Your task to perform on an android device: Open Youtube and go to the subscriptions tab Image 0: 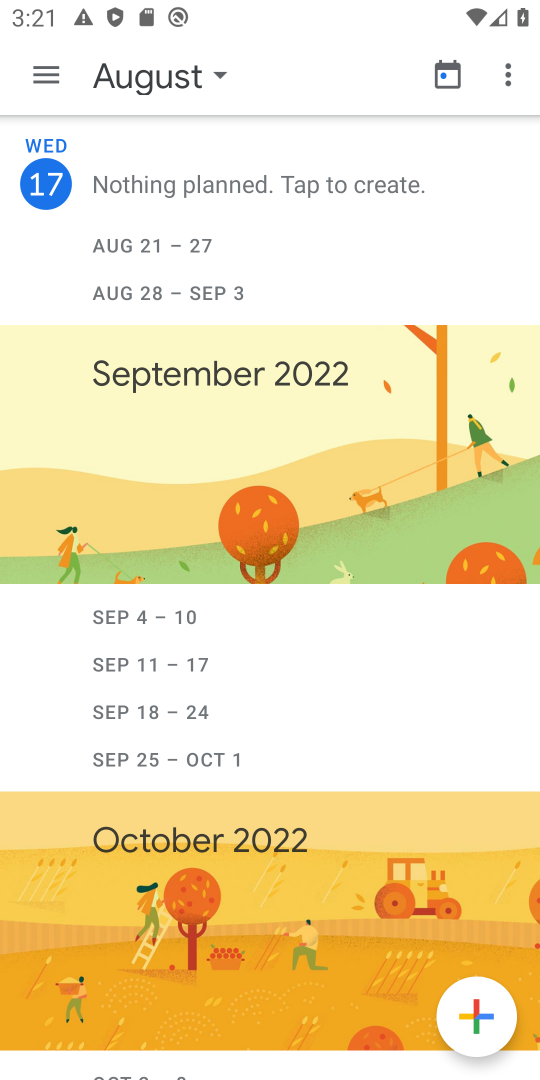
Step 0: press home button
Your task to perform on an android device: Open Youtube and go to the subscriptions tab Image 1: 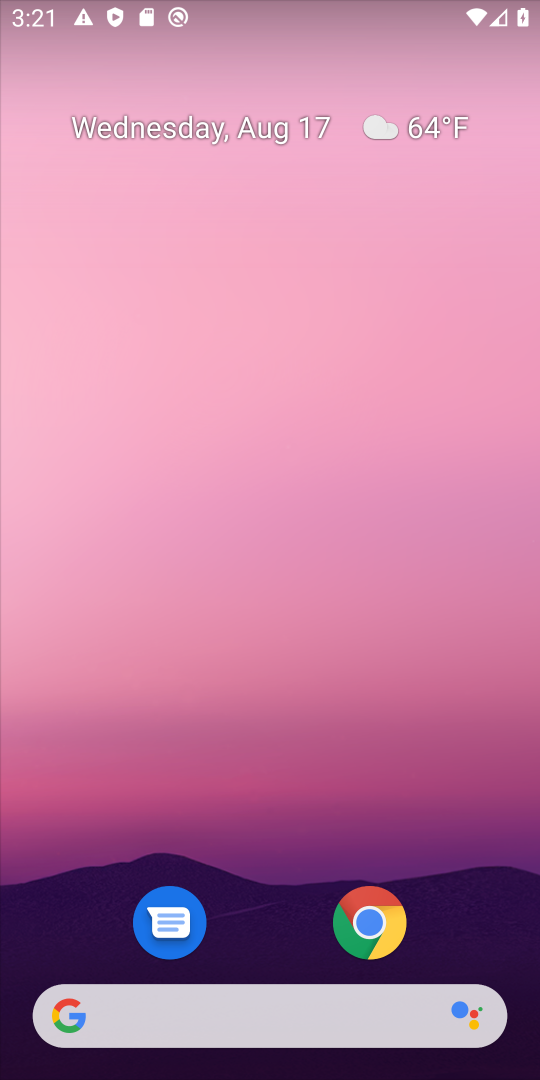
Step 1: drag from (297, 961) to (342, 270)
Your task to perform on an android device: Open Youtube and go to the subscriptions tab Image 2: 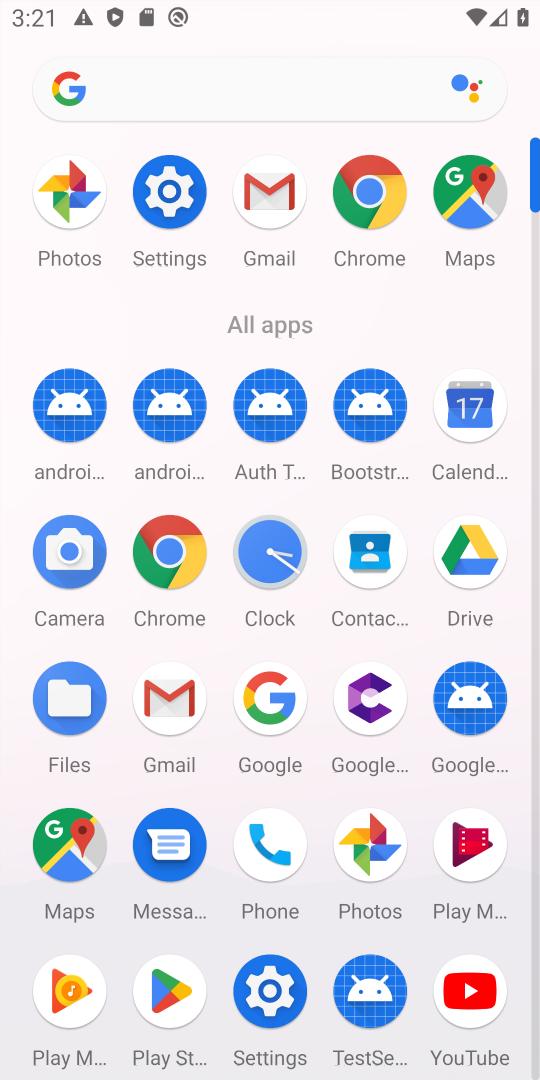
Step 2: click (473, 1001)
Your task to perform on an android device: Open Youtube and go to the subscriptions tab Image 3: 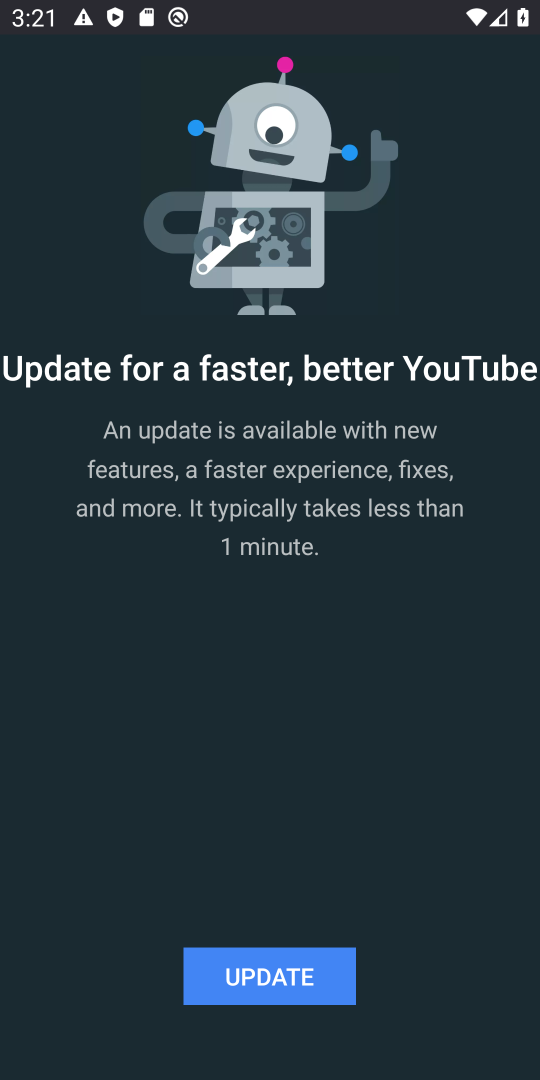
Step 3: click (282, 997)
Your task to perform on an android device: Open Youtube and go to the subscriptions tab Image 4: 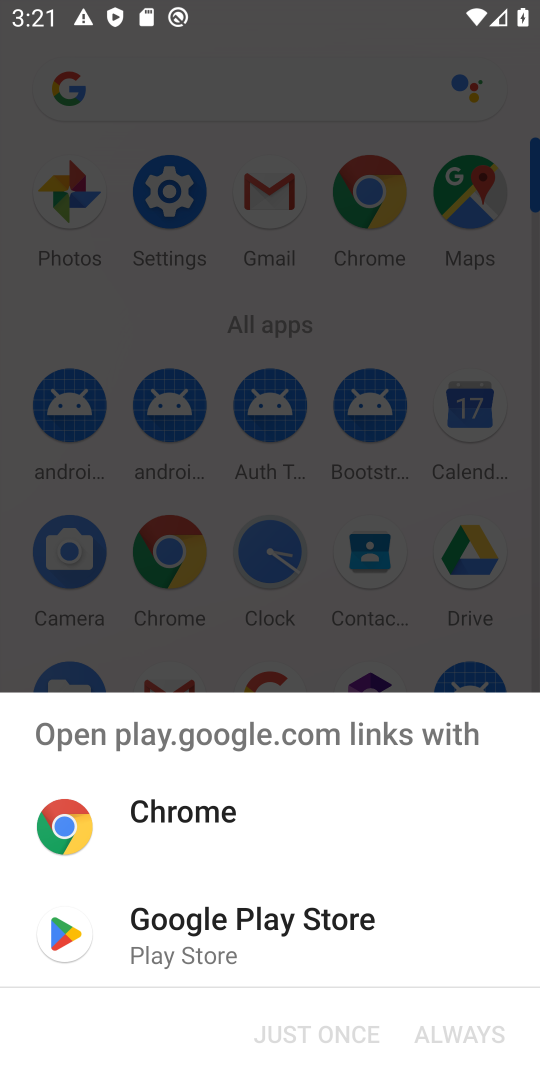
Step 4: click (376, 892)
Your task to perform on an android device: Open Youtube and go to the subscriptions tab Image 5: 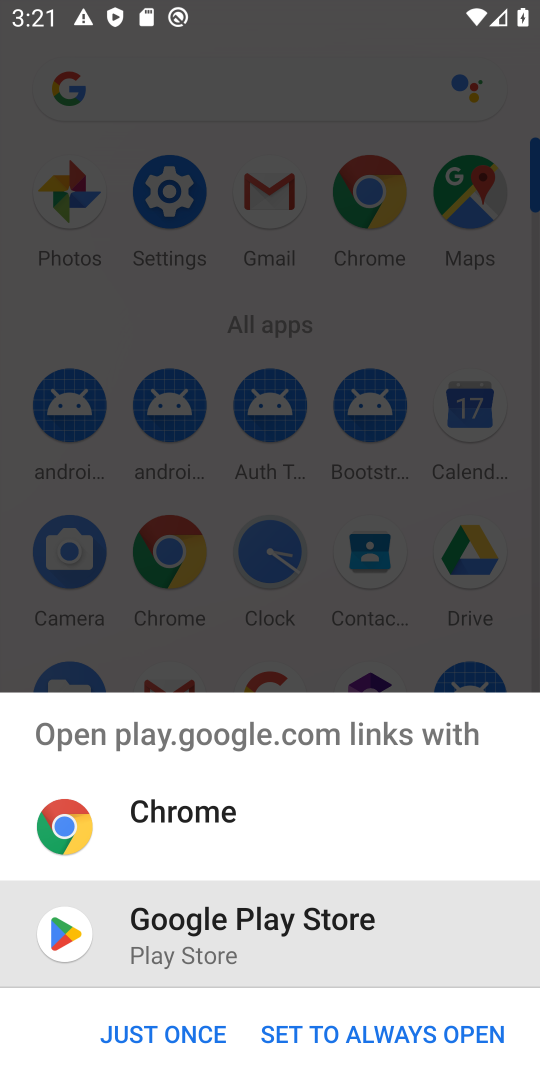
Step 5: click (119, 1030)
Your task to perform on an android device: Open Youtube and go to the subscriptions tab Image 6: 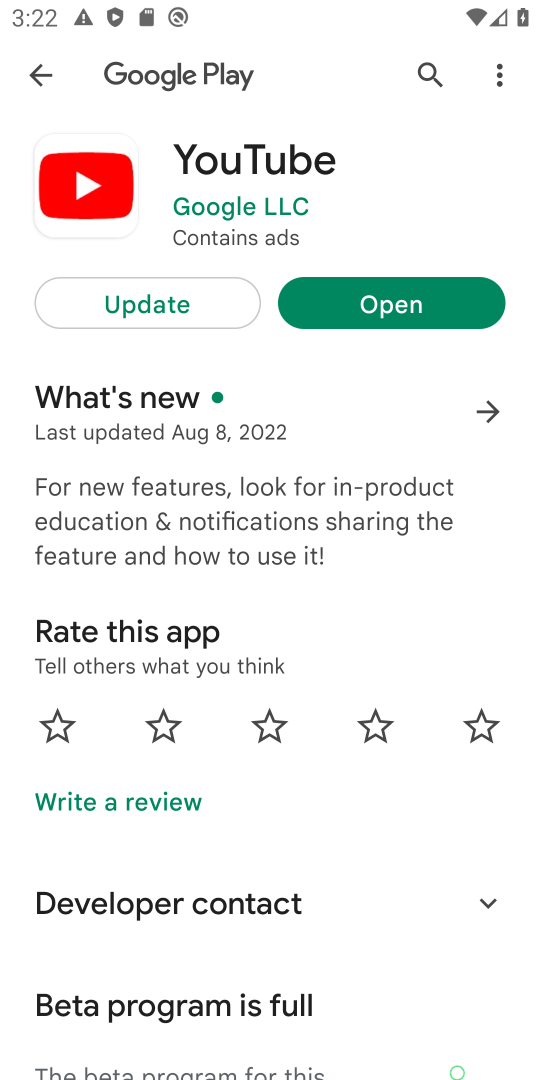
Step 6: click (459, 320)
Your task to perform on an android device: Open Youtube and go to the subscriptions tab Image 7: 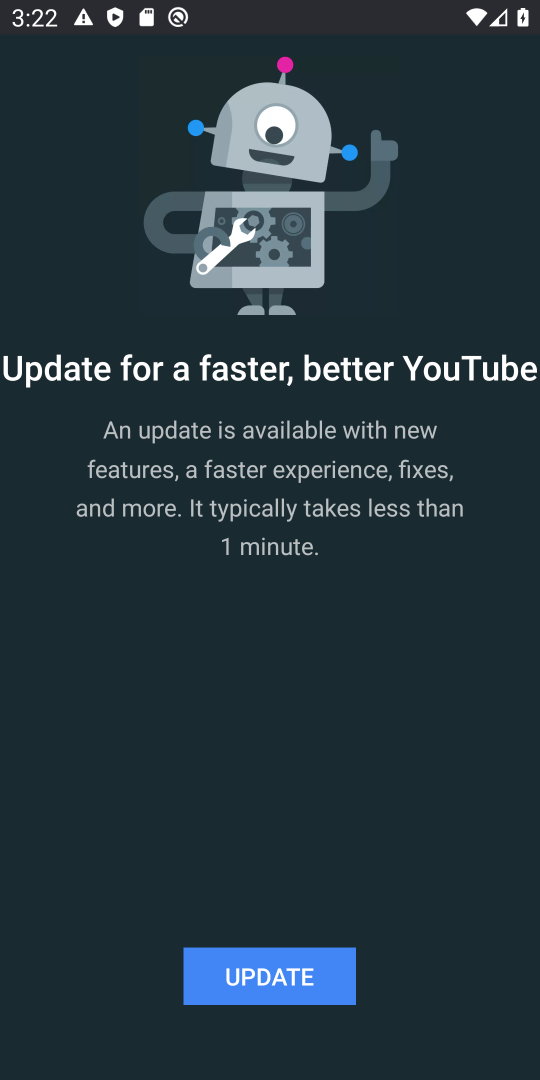
Step 7: click (288, 979)
Your task to perform on an android device: Open Youtube and go to the subscriptions tab Image 8: 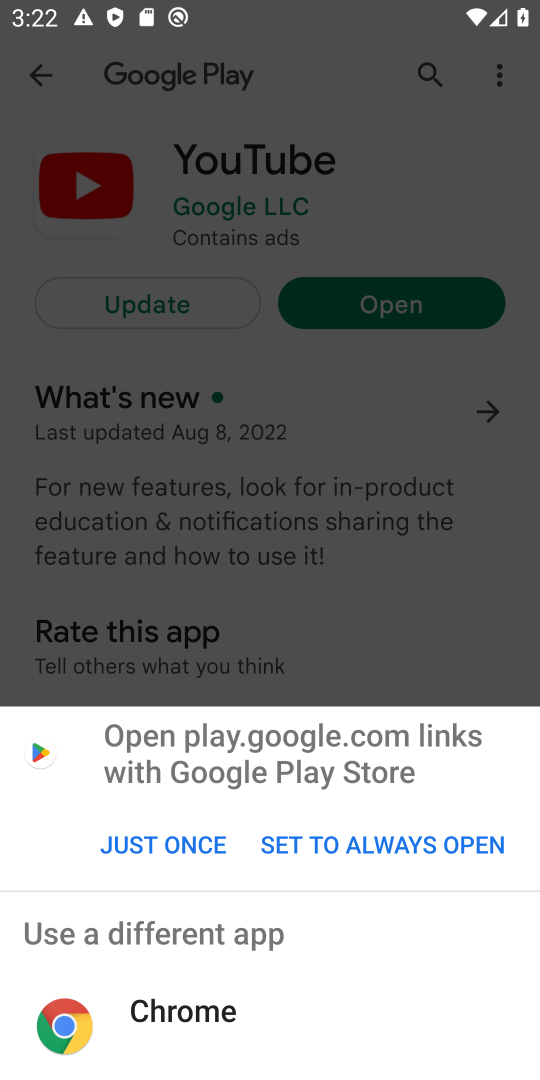
Step 8: click (152, 850)
Your task to perform on an android device: Open Youtube and go to the subscriptions tab Image 9: 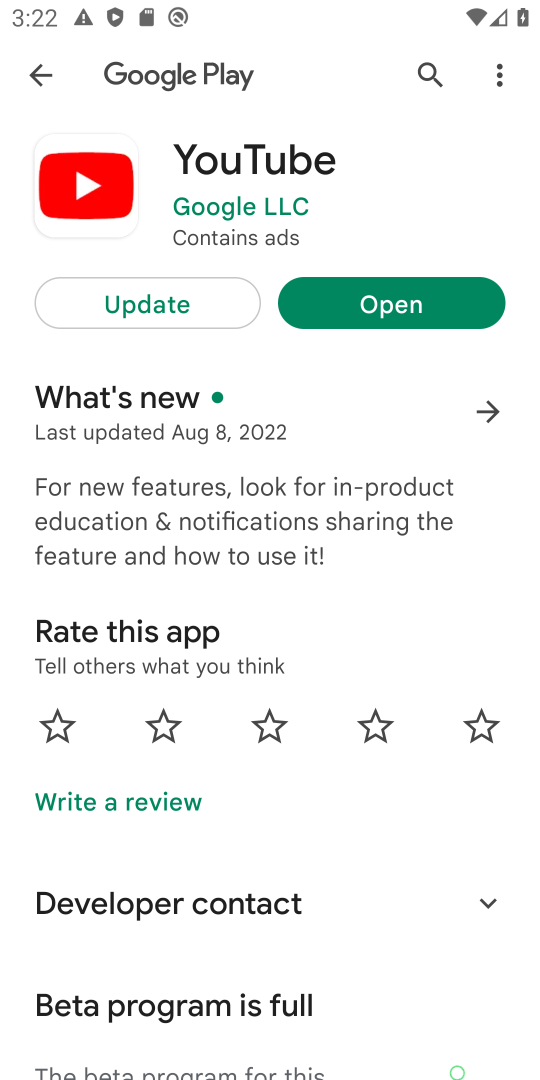
Step 9: click (207, 293)
Your task to perform on an android device: Open Youtube and go to the subscriptions tab Image 10: 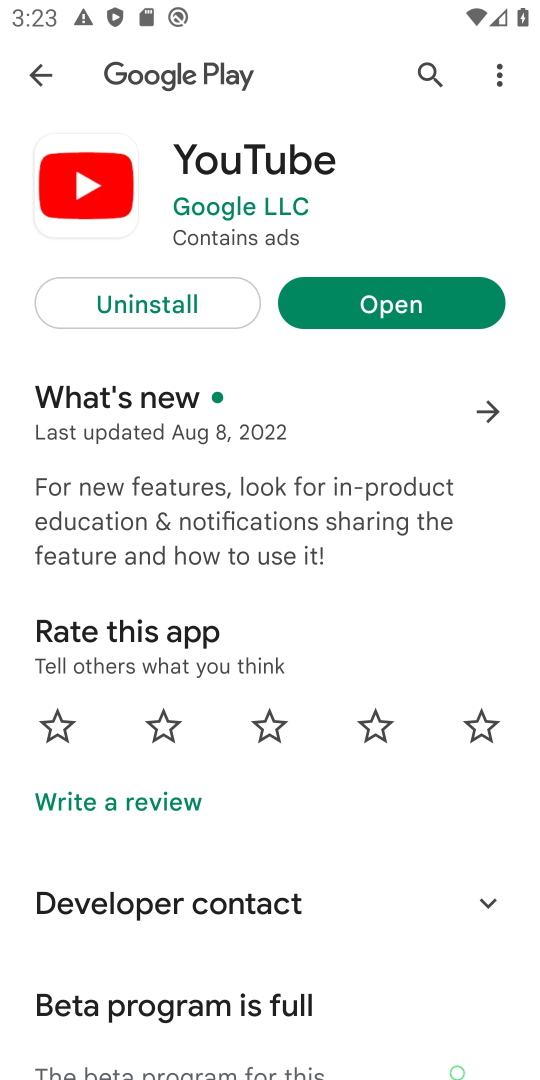
Step 10: click (356, 309)
Your task to perform on an android device: Open Youtube and go to the subscriptions tab Image 11: 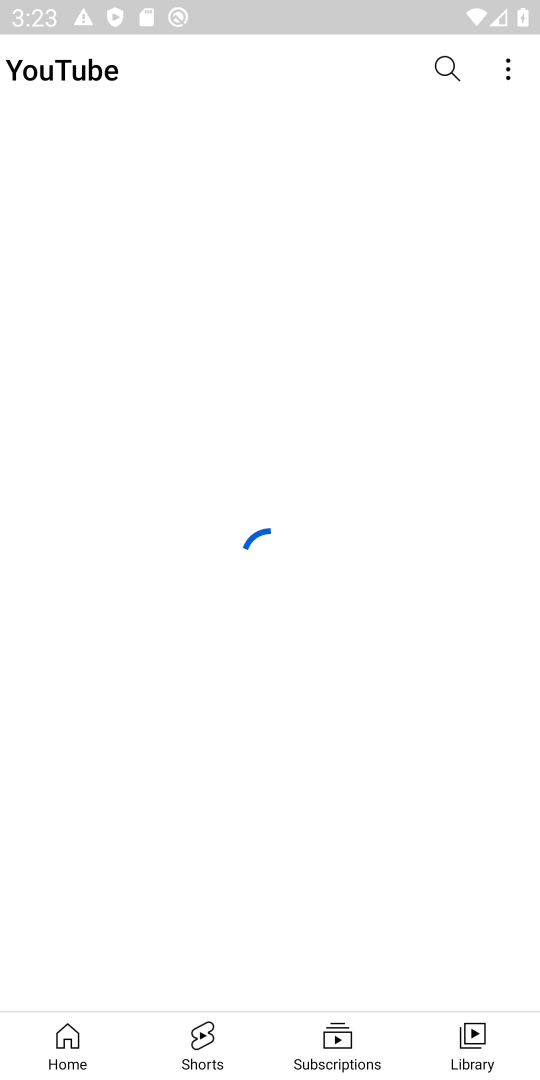
Step 11: click (319, 1054)
Your task to perform on an android device: Open Youtube and go to the subscriptions tab Image 12: 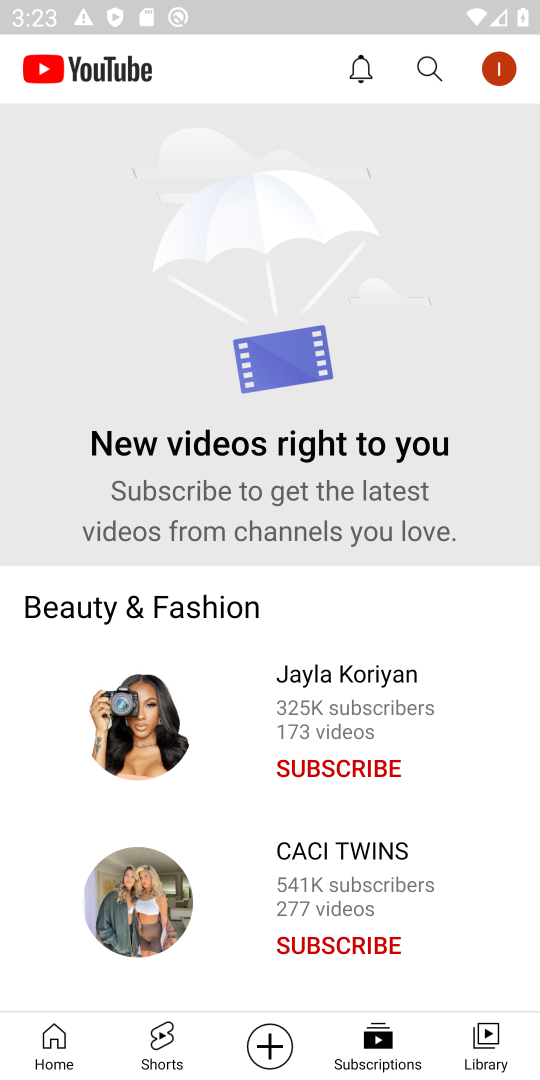
Step 12: task complete